Your task to perform on an android device: Open internet settings Image 0: 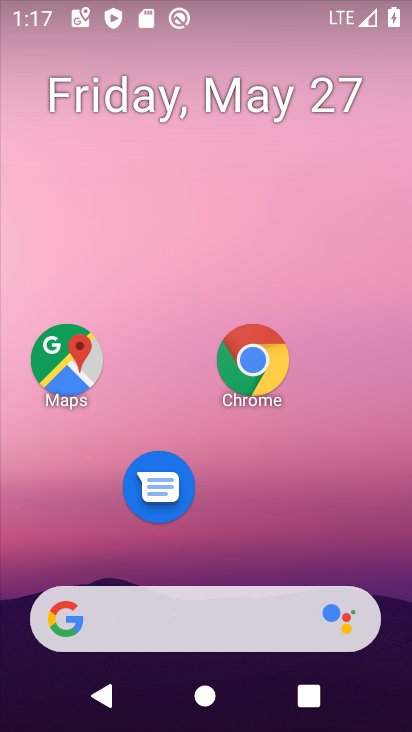
Step 0: drag from (244, 519) to (275, 44)
Your task to perform on an android device: Open internet settings Image 1: 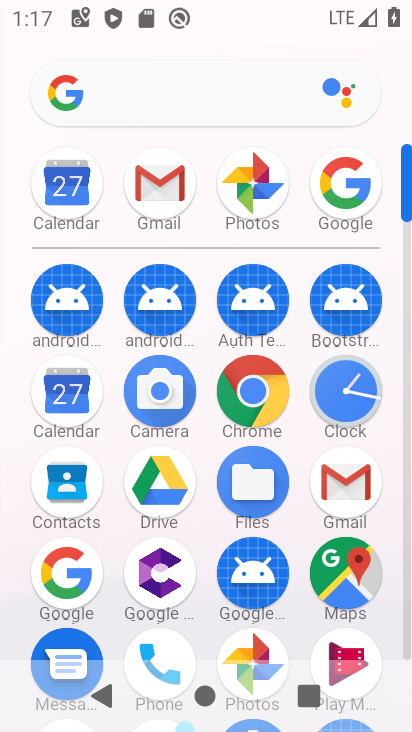
Step 1: drag from (200, 520) to (201, 154)
Your task to perform on an android device: Open internet settings Image 2: 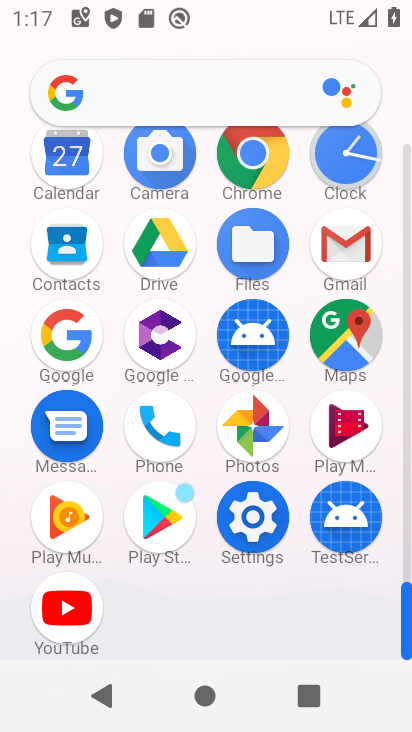
Step 2: click (261, 521)
Your task to perform on an android device: Open internet settings Image 3: 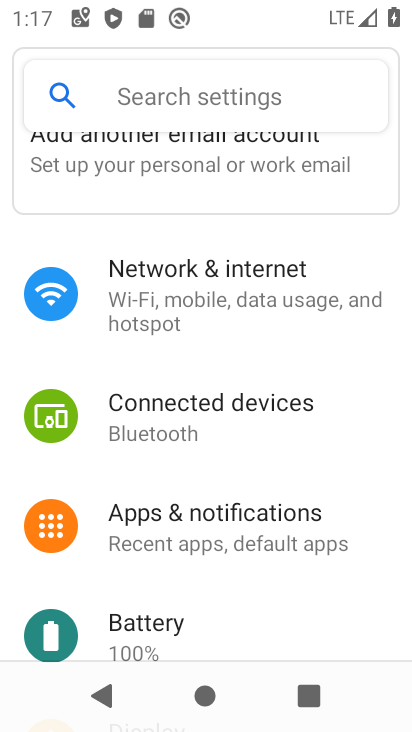
Step 3: click (189, 294)
Your task to perform on an android device: Open internet settings Image 4: 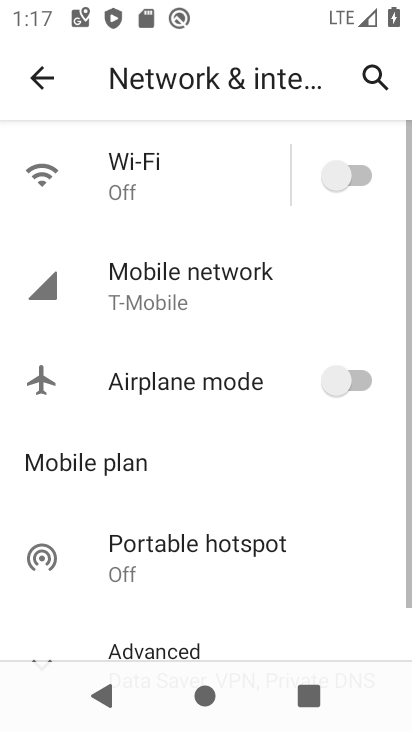
Step 4: click (165, 182)
Your task to perform on an android device: Open internet settings Image 5: 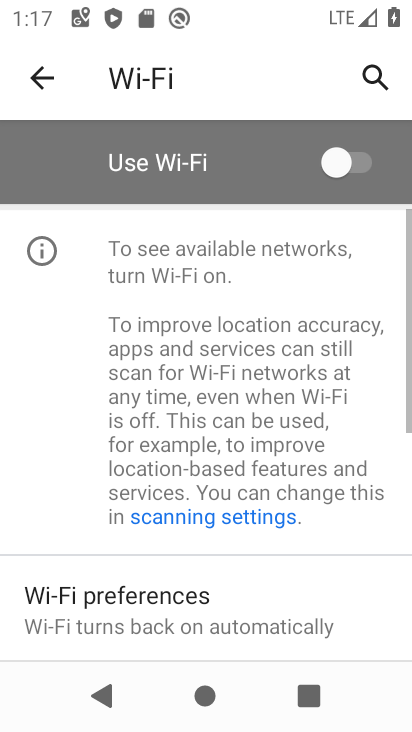
Step 5: click (331, 166)
Your task to perform on an android device: Open internet settings Image 6: 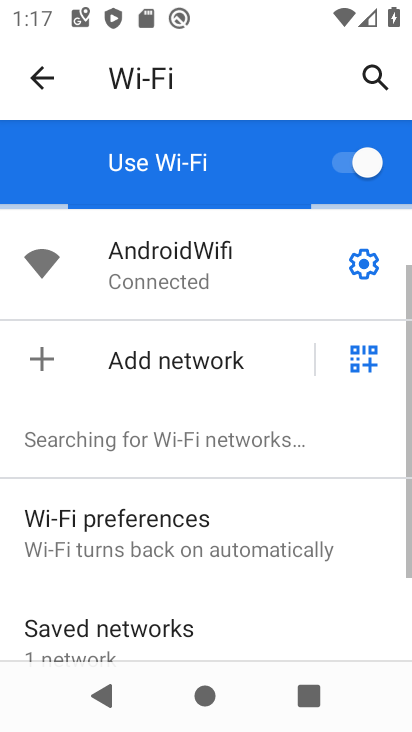
Step 6: click (184, 266)
Your task to perform on an android device: Open internet settings Image 7: 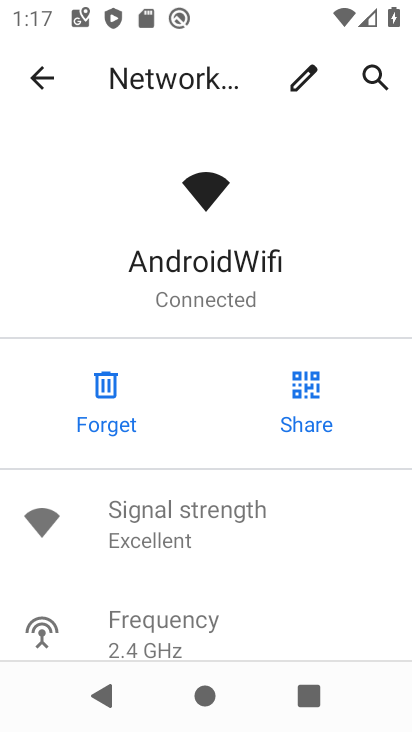
Step 7: task complete